Your task to perform on an android device: Search for top rated sushi restaurant Image 0: 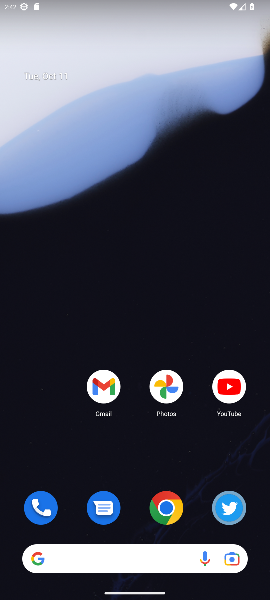
Step 0: drag from (189, 480) to (144, 299)
Your task to perform on an android device: Search for top rated sushi restaurant Image 1: 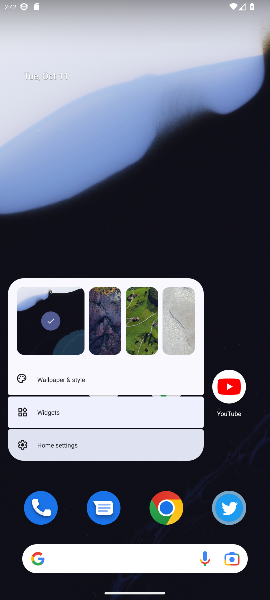
Step 1: click (174, 506)
Your task to perform on an android device: Search for top rated sushi restaurant Image 2: 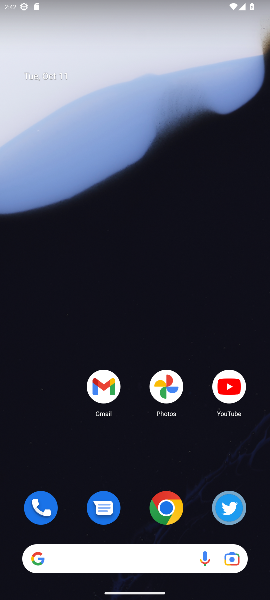
Step 2: click (172, 505)
Your task to perform on an android device: Search for top rated sushi restaurant Image 3: 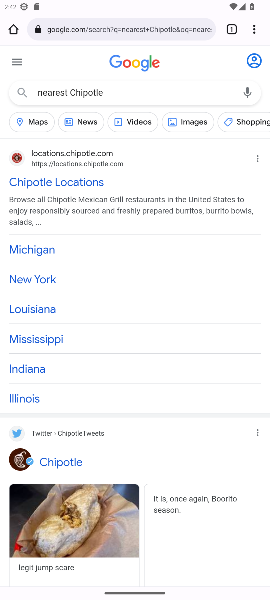
Step 3: click (89, 29)
Your task to perform on an android device: Search for top rated sushi restaurant Image 4: 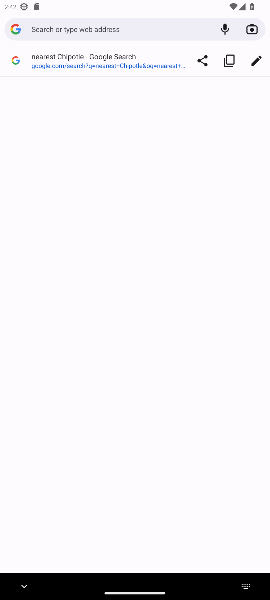
Step 4: type "top rated sushi restaurant"
Your task to perform on an android device: Search for top rated sushi restaurant Image 5: 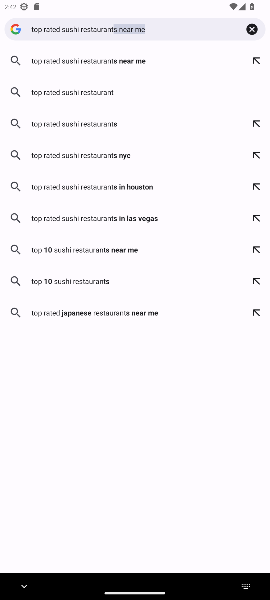
Step 5: press enter
Your task to perform on an android device: Search for top rated sushi restaurant Image 6: 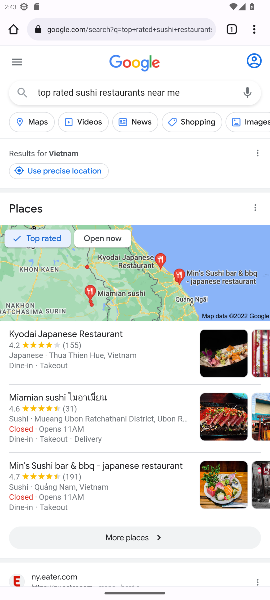
Step 6: click (118, 537)
Your task to perform on an android device: Search for top rated sushi restaurant Image 7: 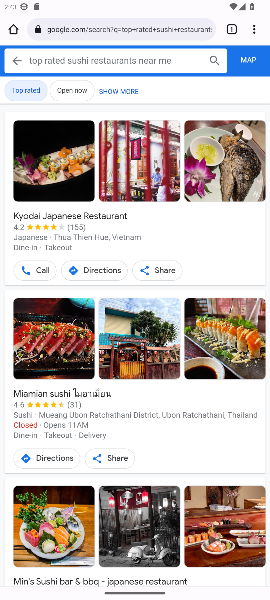
Step 7: task complete